Your task to perform on an android device: turn on showing notifications on the lock screen Image 0: 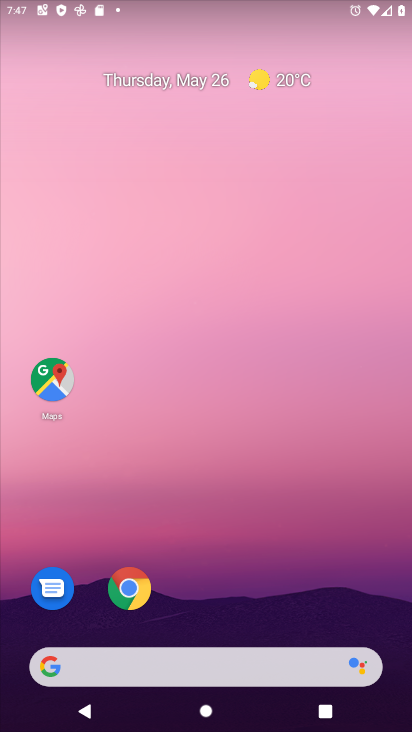
Step 0: drag from (394, 634) to (285, 48)
Your task to perform on an android device: turn on showing notifications on the lock screen Image 1: 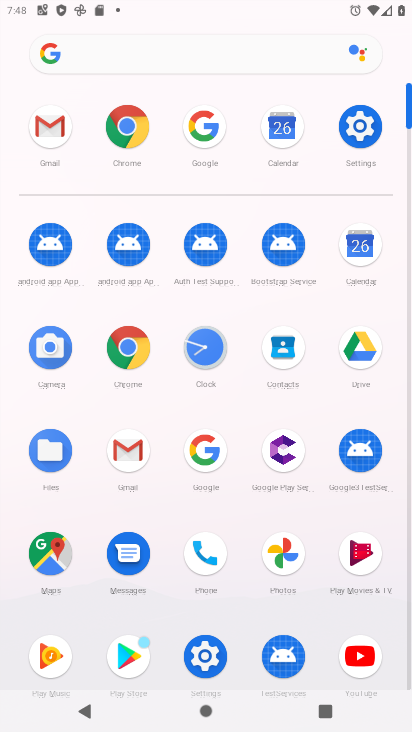
Step 1: click (346, 127)
Your task to perform on an android device: turn on showing notifications on the lock screen Image 2: 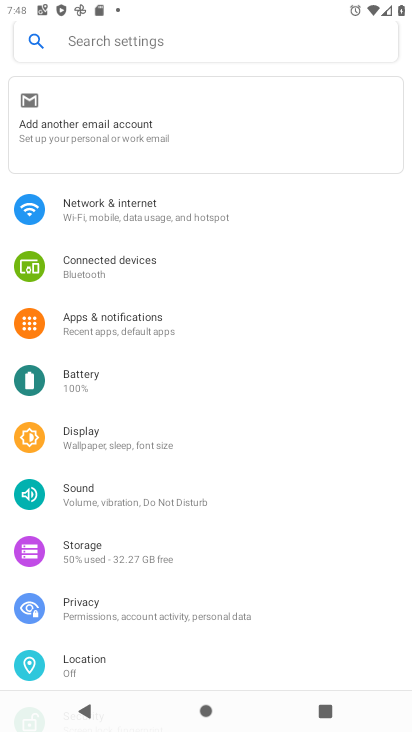
Step 2: click (114, 339)
Your task to perform on an android device: turn on showing notifications on the lock screen Image 3: 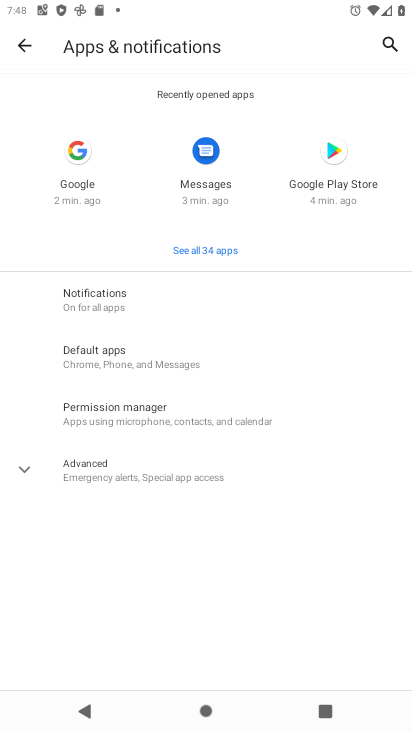
Step 3: click (96, 280)
Your task to perform on an android device: turn on showing notifications on the lock screen Image 4: 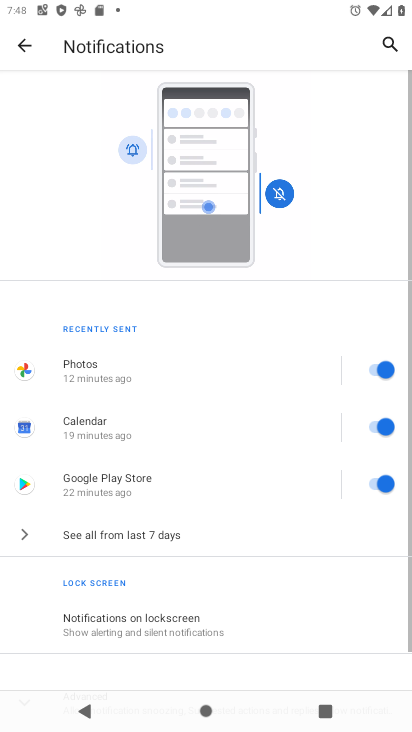
Step 4: click (166, 611)
Your task to perform on an android device: turn on showing notifications on the lock screen Image 5: 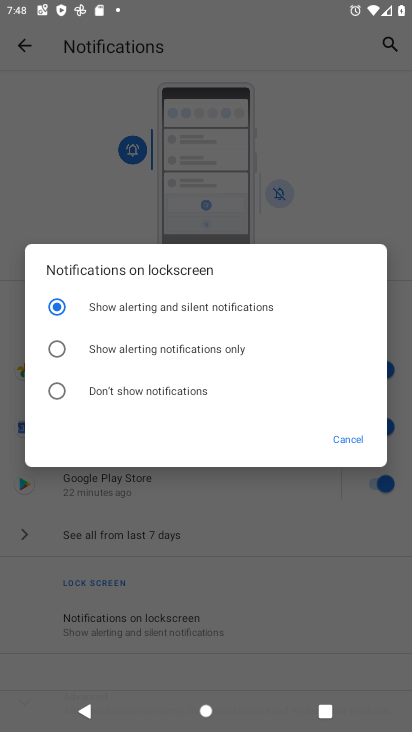
Step 5: task complete